Your task to perform on an android device: Search for vegetarian restaurants on Maps Image 0: 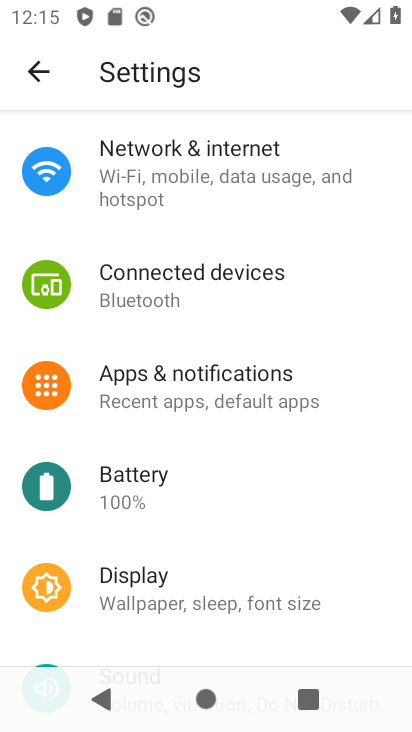
Step 0: press home button
Your task to perform on an android device: Search for vegetarian restaurants on Maps Image 1: 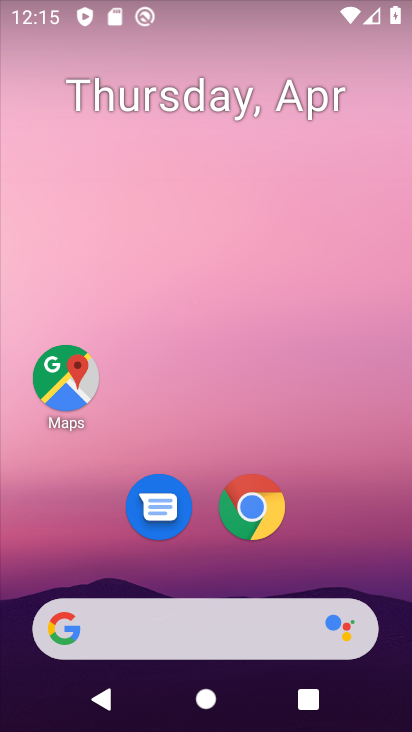
Step 1: click (69, 382)
Your task to perform on an android device: Search for vegetarian restaurants on Maps Image 2: 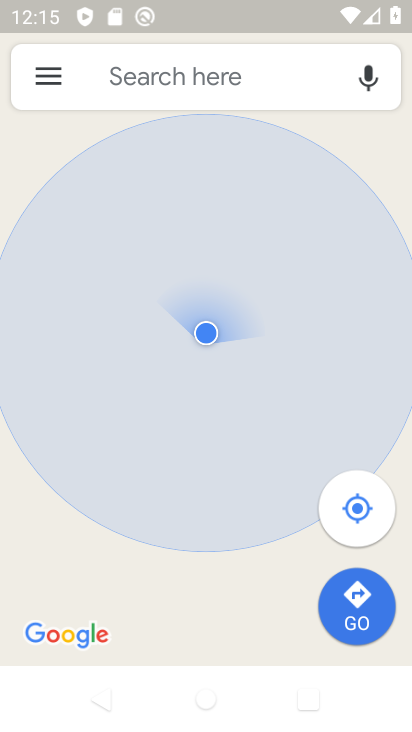
Step 2: click (213, 75)
Your task to perform on an android device: Search for vegetarian restaurants on Maps Image 3: 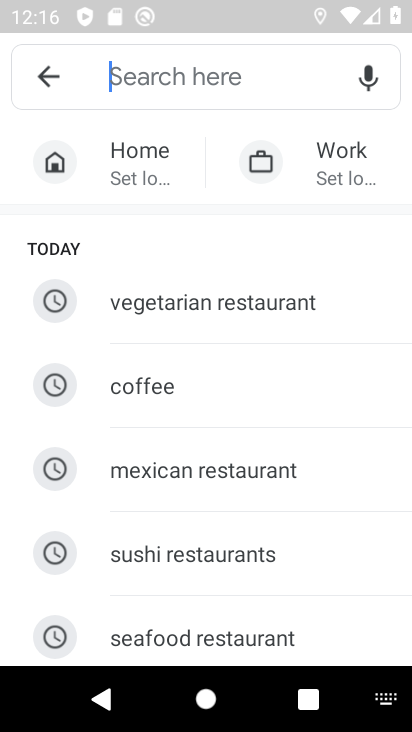
Step 3: type "vegetarian restaurants"
Your task to perform on an android device: Search for vegetarian restaurants on Maps Image 4: 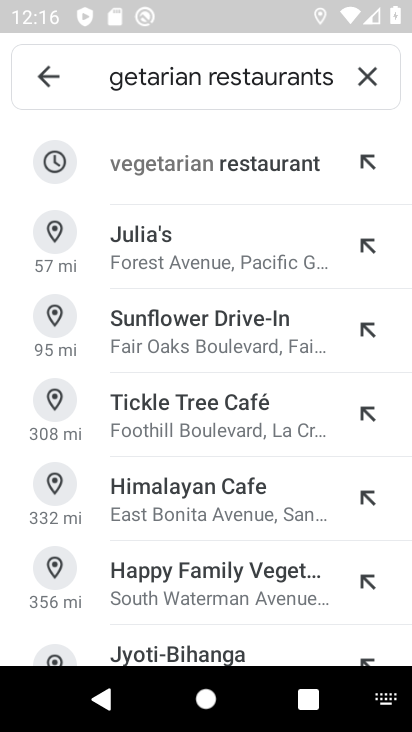
Step 4: click (275, 171)
Your task to perform on an android device: Search for vegetarian restaurants on Maps Image 5: 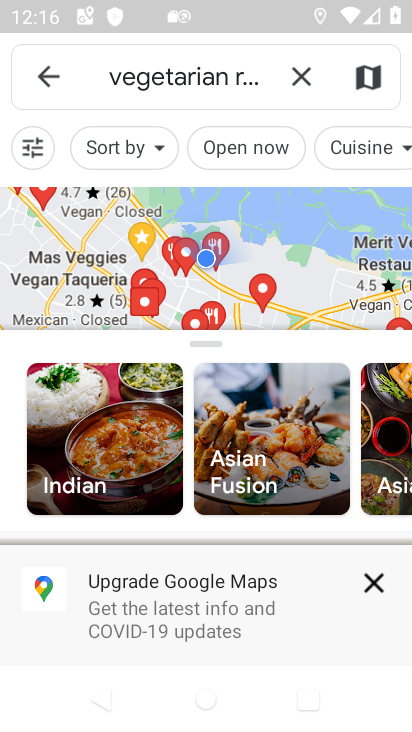
Step 5: click (375, 584)
Your task to perform on an android device: Search for vegetarian restaurants on Maps Image 6: 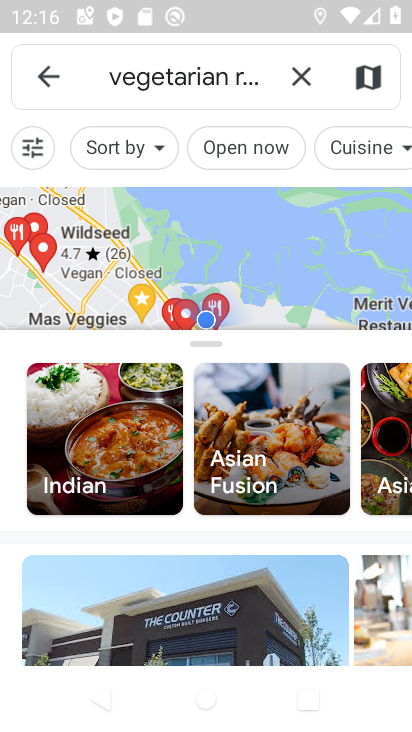
Step 6: task complete